Your task to perform on an android device: Open the stopwatch Image 0: 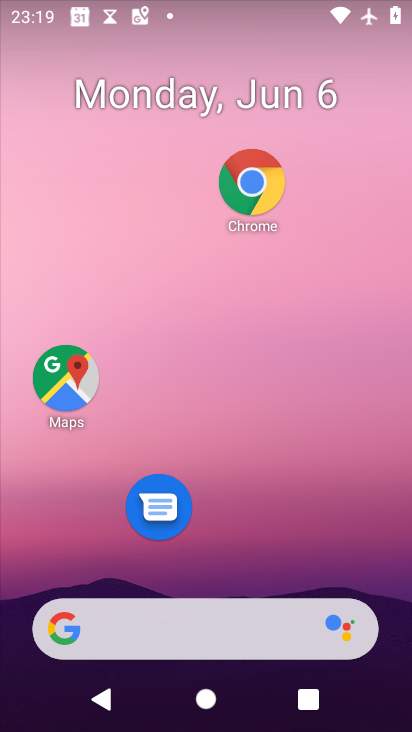
Step 0: drag from (245, 606) to (231, 293)
Your task to perform on an android device: Open the stopwatch Image 1: 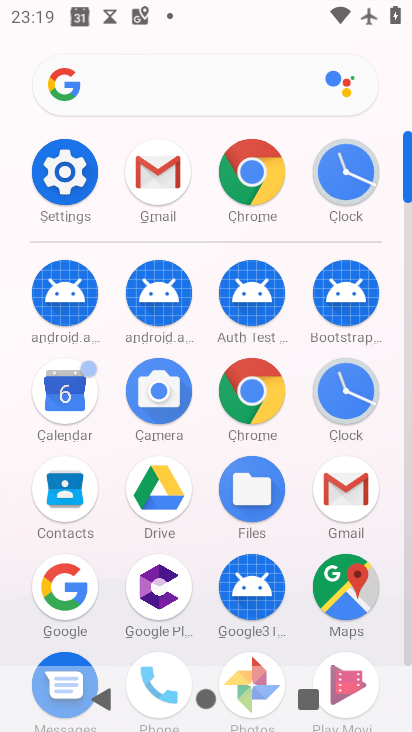
Step 1: click (341, 386)
Your task to perform on an android device: Open the stopwatch Image 2: 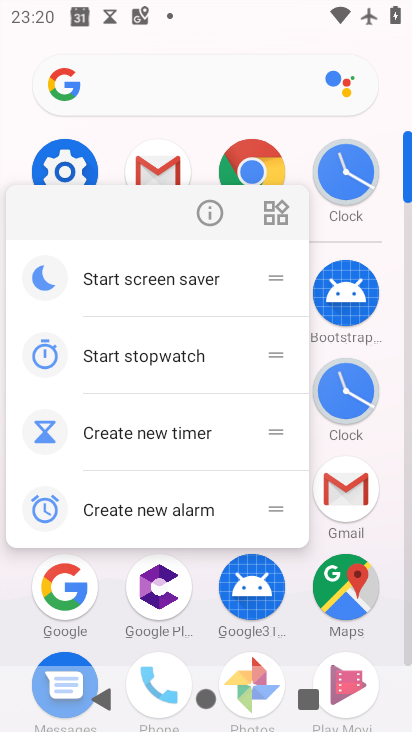
Step 2: click (345, 375)
Your task to perform on an android device: Open the stopwatch Image 3: 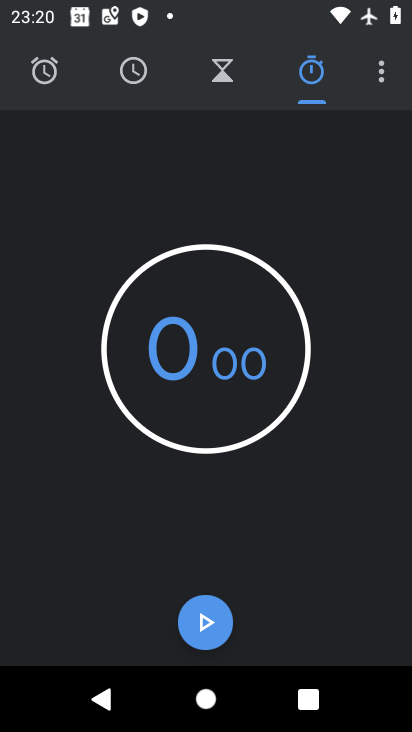
Step 3: task complete